Your task to perform on an android device: turn smart compose on in the gmail app Image 0: 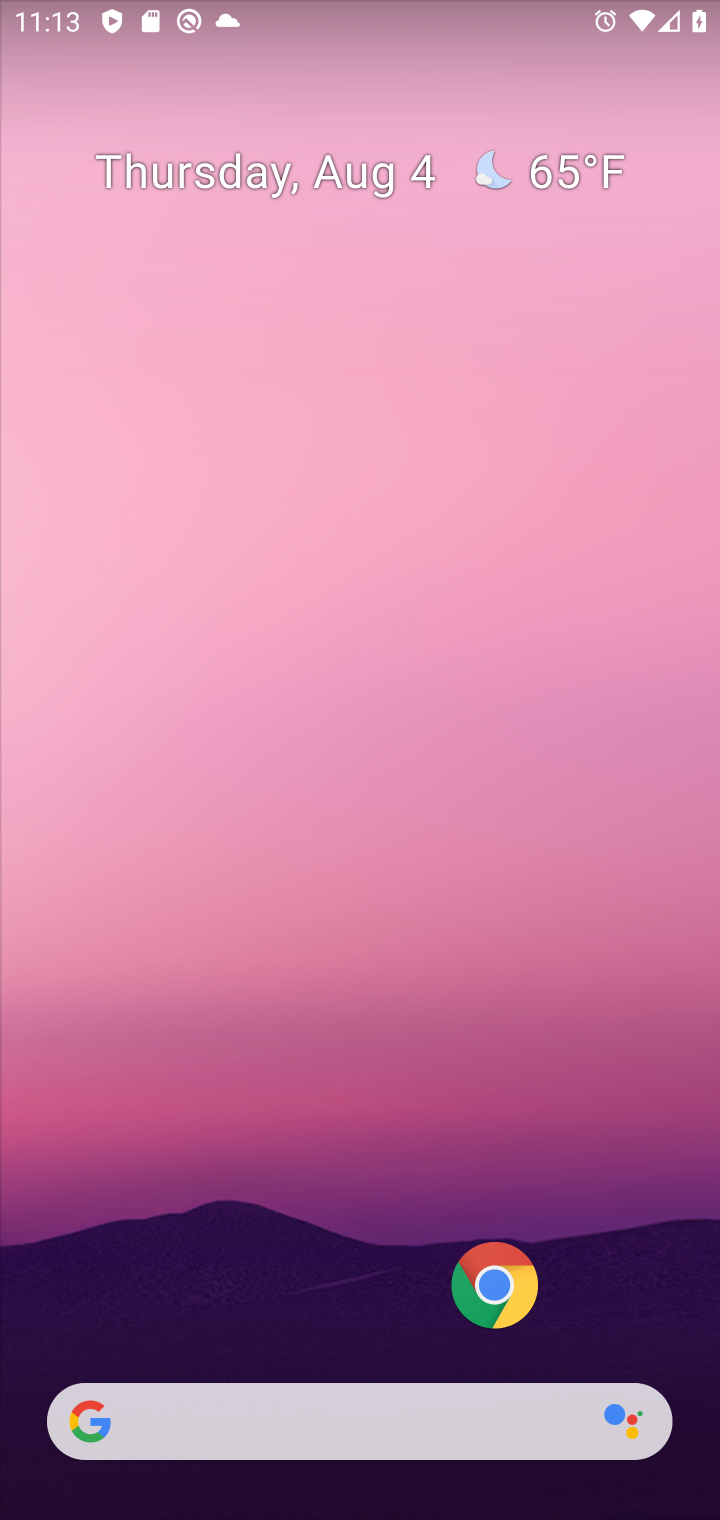
Step 0: press home button
Your task to perform on an android device: turn smart compose on in the gmail app Image 1: 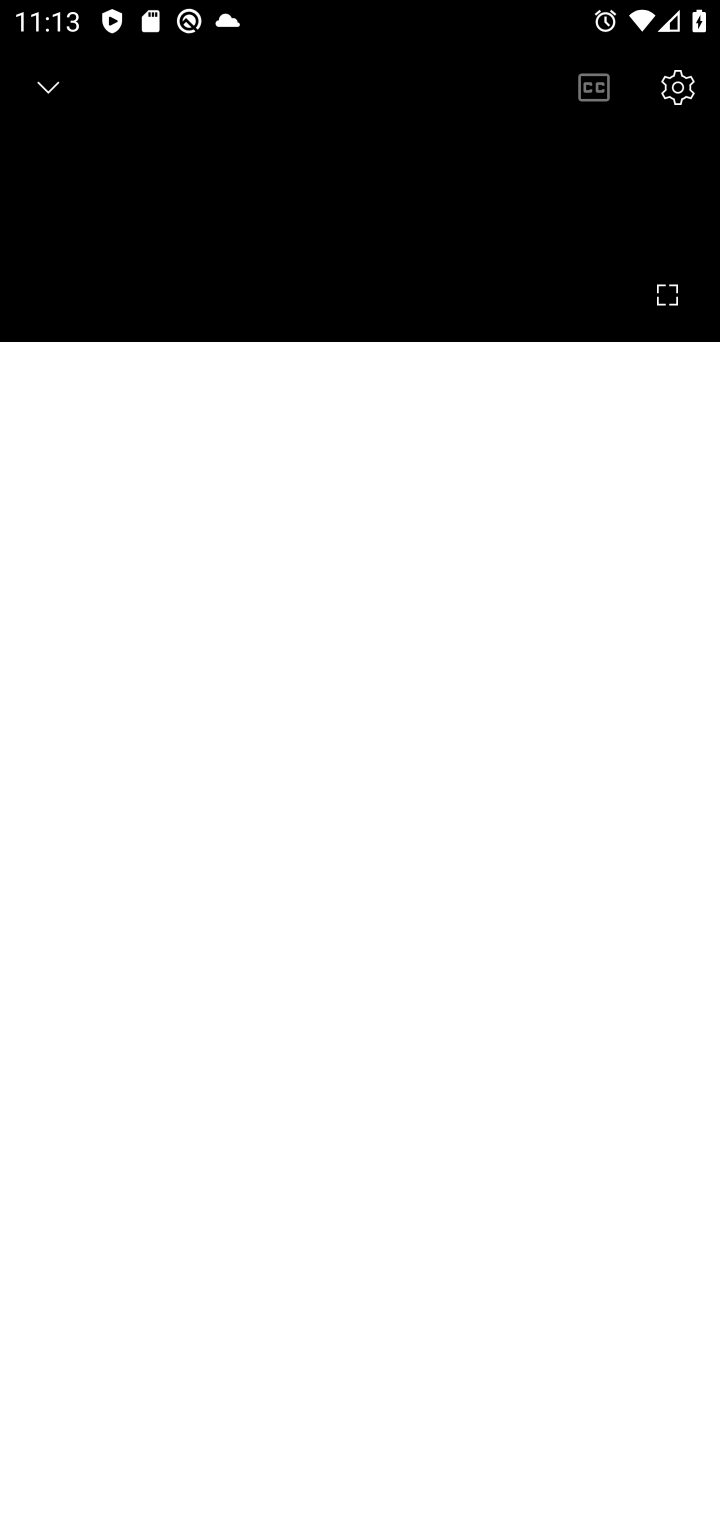
Step 1: drag from (278, 196) to (293, 128)
Your task to perform on an android device: turn smart compose on in the gmail app Image 2: 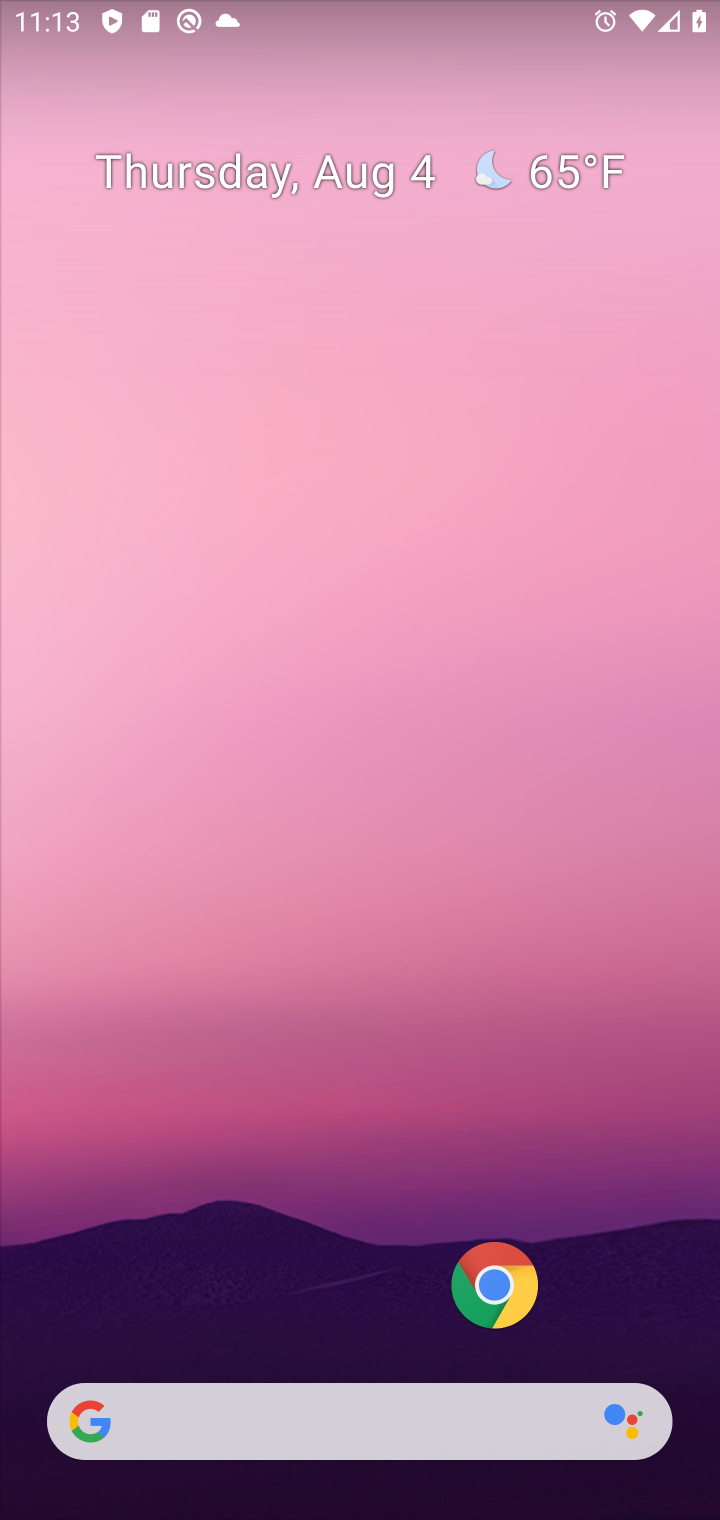
Step 2: drag from (344, 1356) to (373, 316)
Your task to perform on an android device: turn smart compose on in the gmail app Image 3: 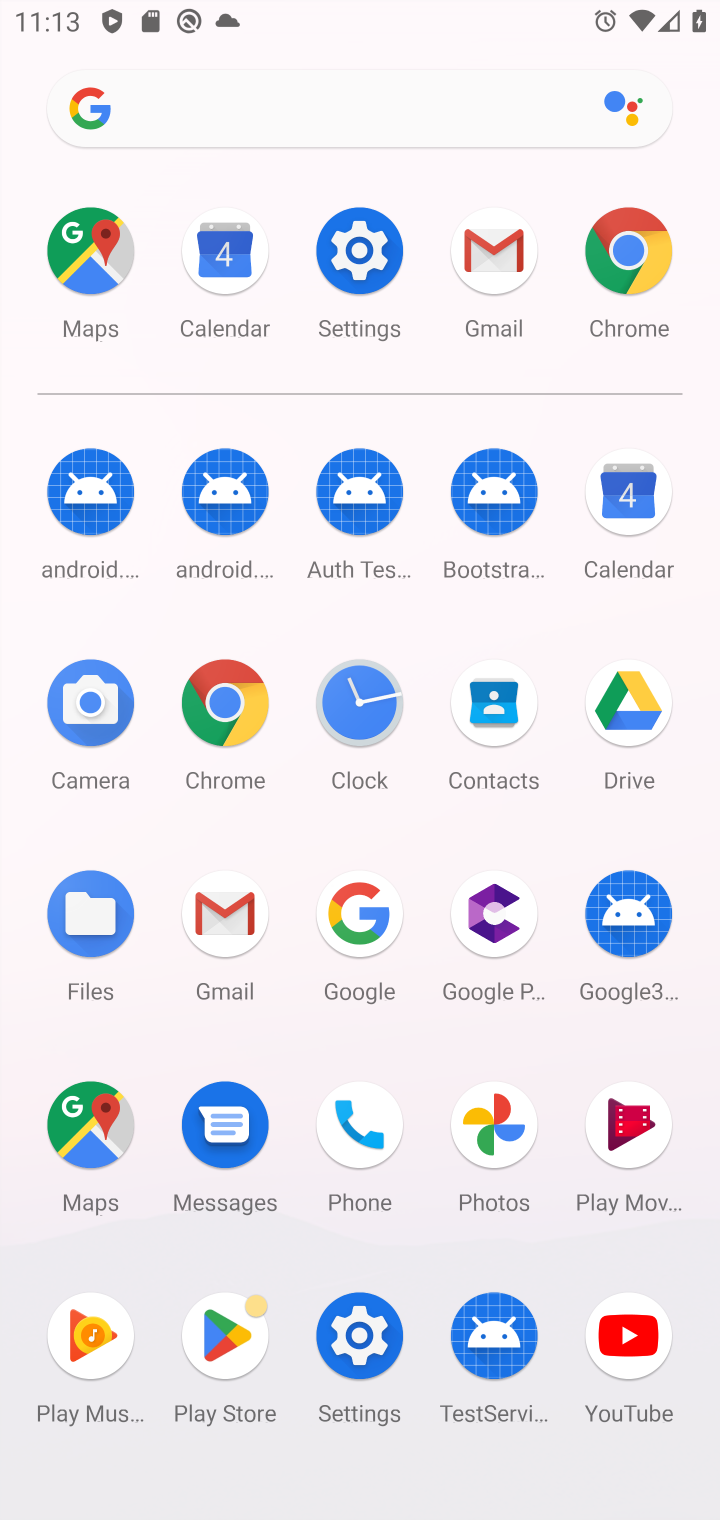
Step 3: click (219, 966)
Your task to perform on an android device: turn smart compose on in the gmail app Image 4: 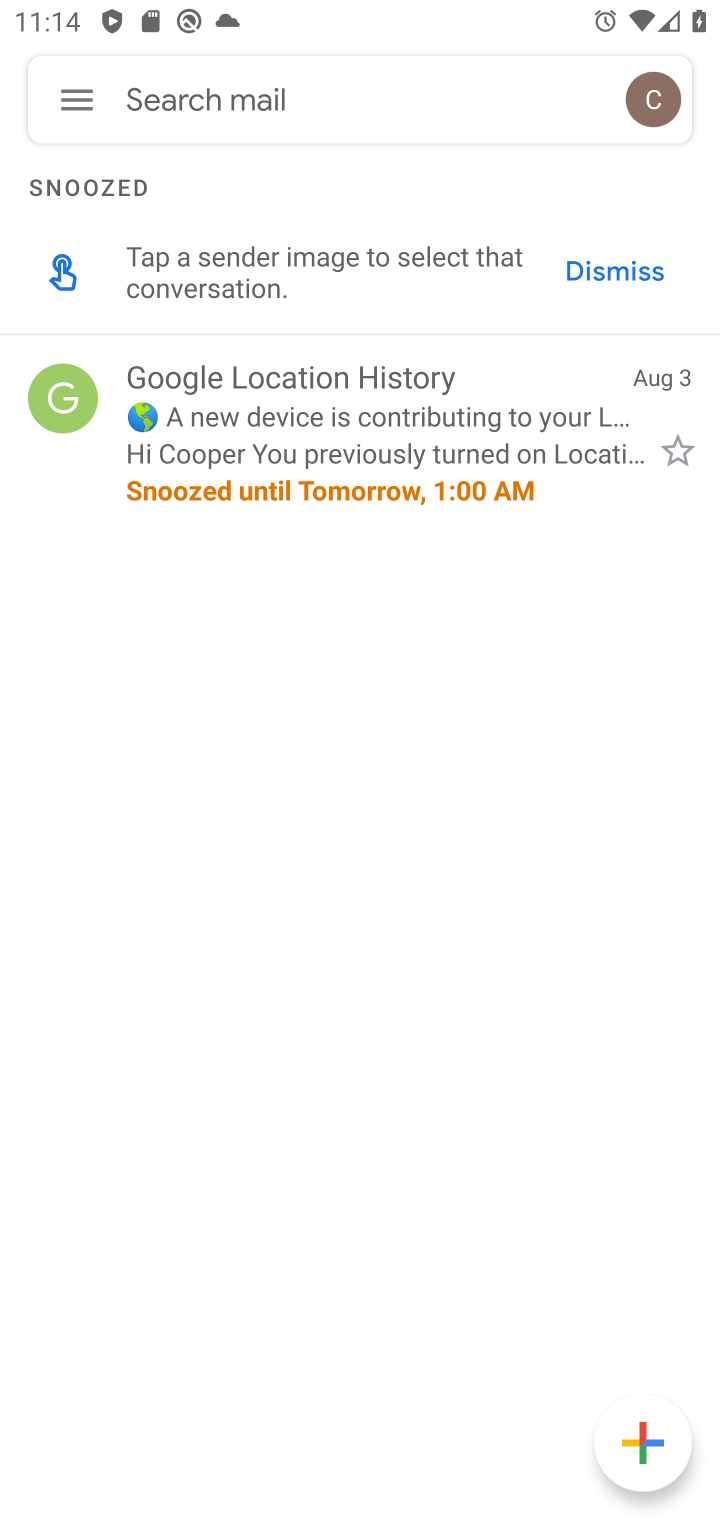
Step 4: click (90, 83)
Your task to perform on an android device: turn smart compose on in the gmail app Image 5: 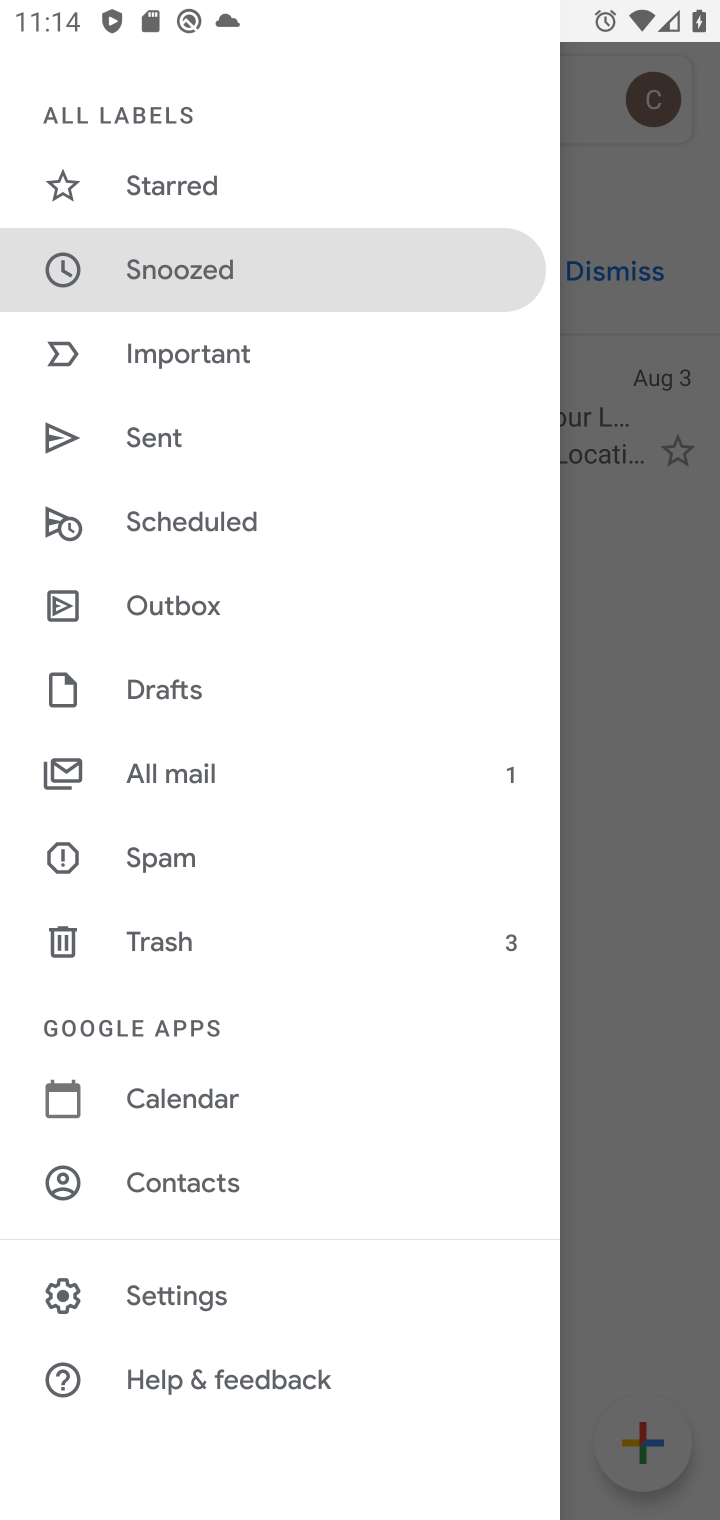
Step 5: click (188, 1304)
Your task to perform on an android device: turn smart compose on in the gmail app Image 6: 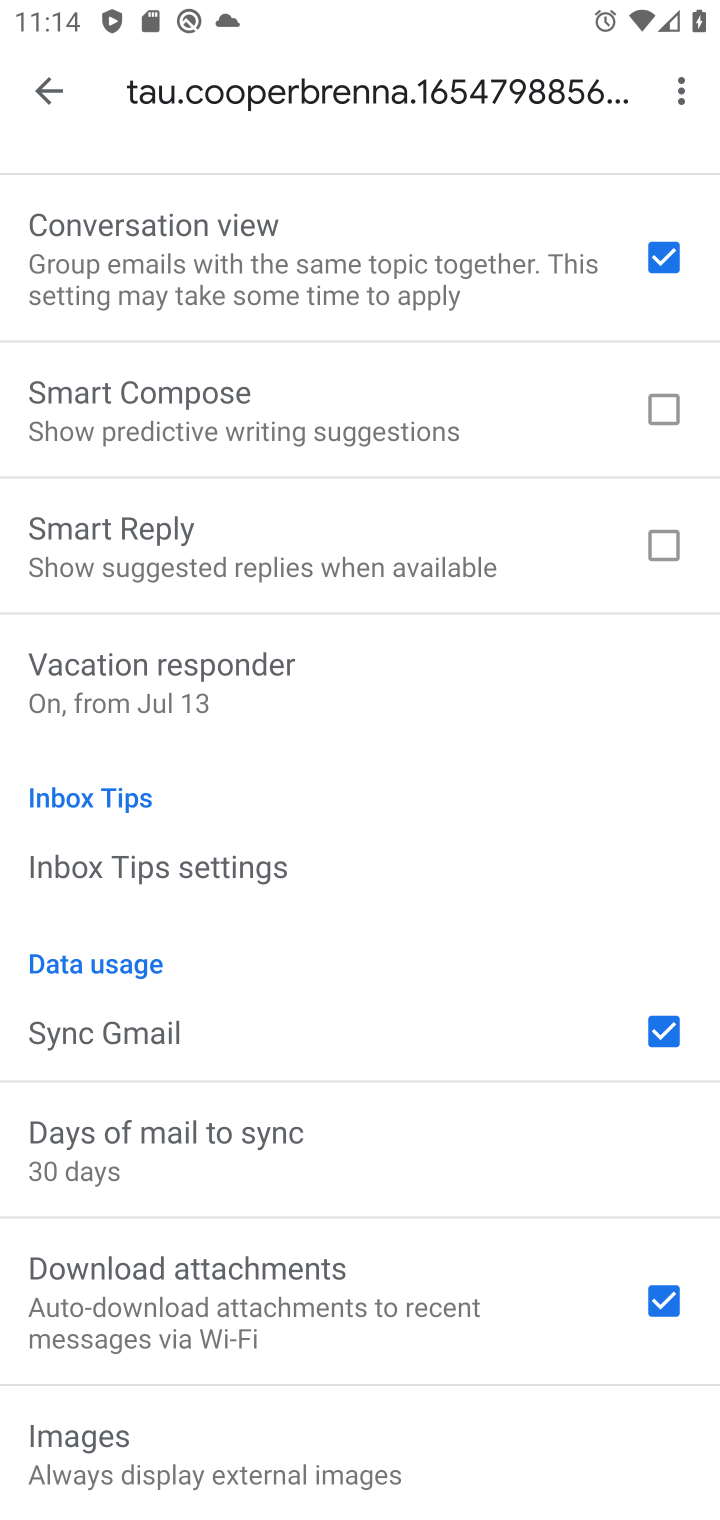
Step 6: click (292, 1273)
Your task to perform on an android device: turn smart compose on in the gmail app Image 7: 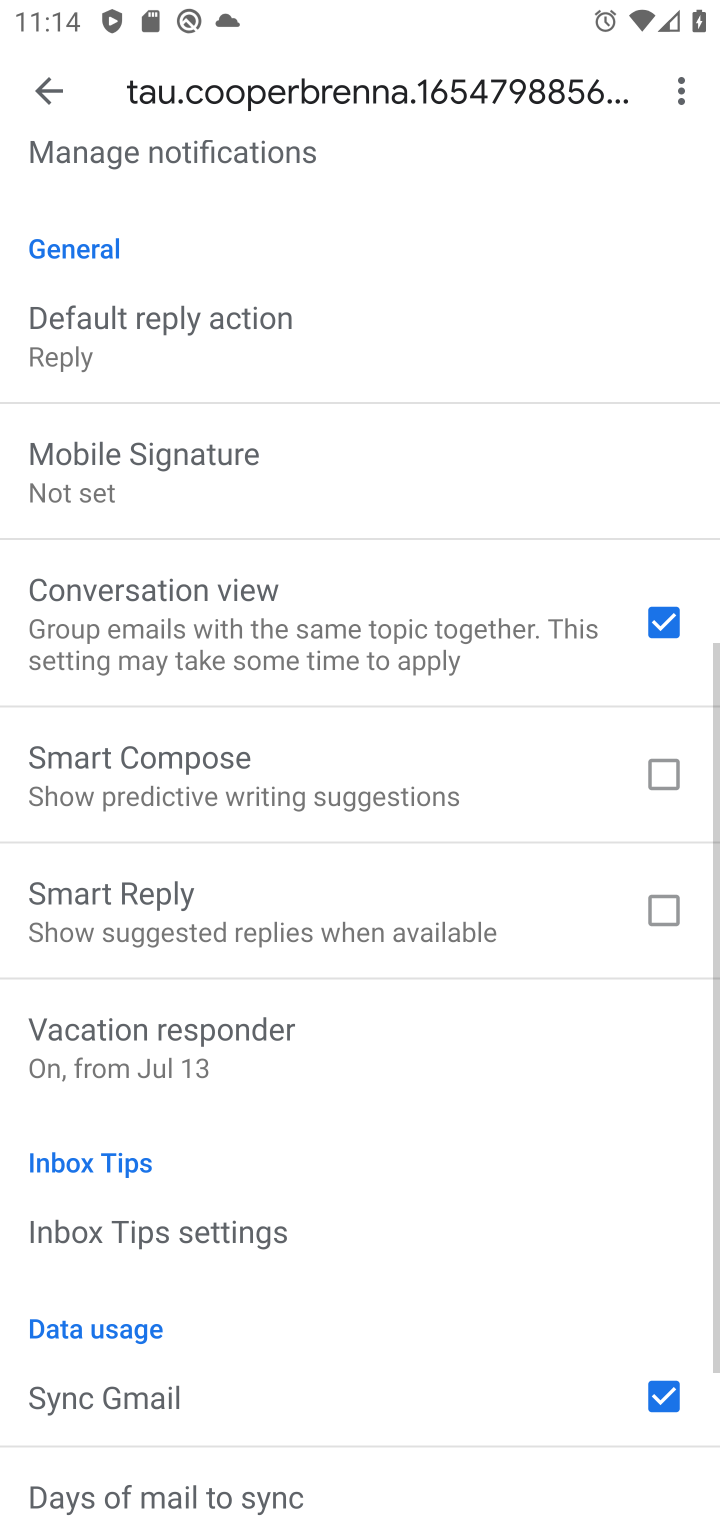
Step 7: click (322, 763)
Your task to perform on an android device: turn smart compose on in the gmail app Image 8: 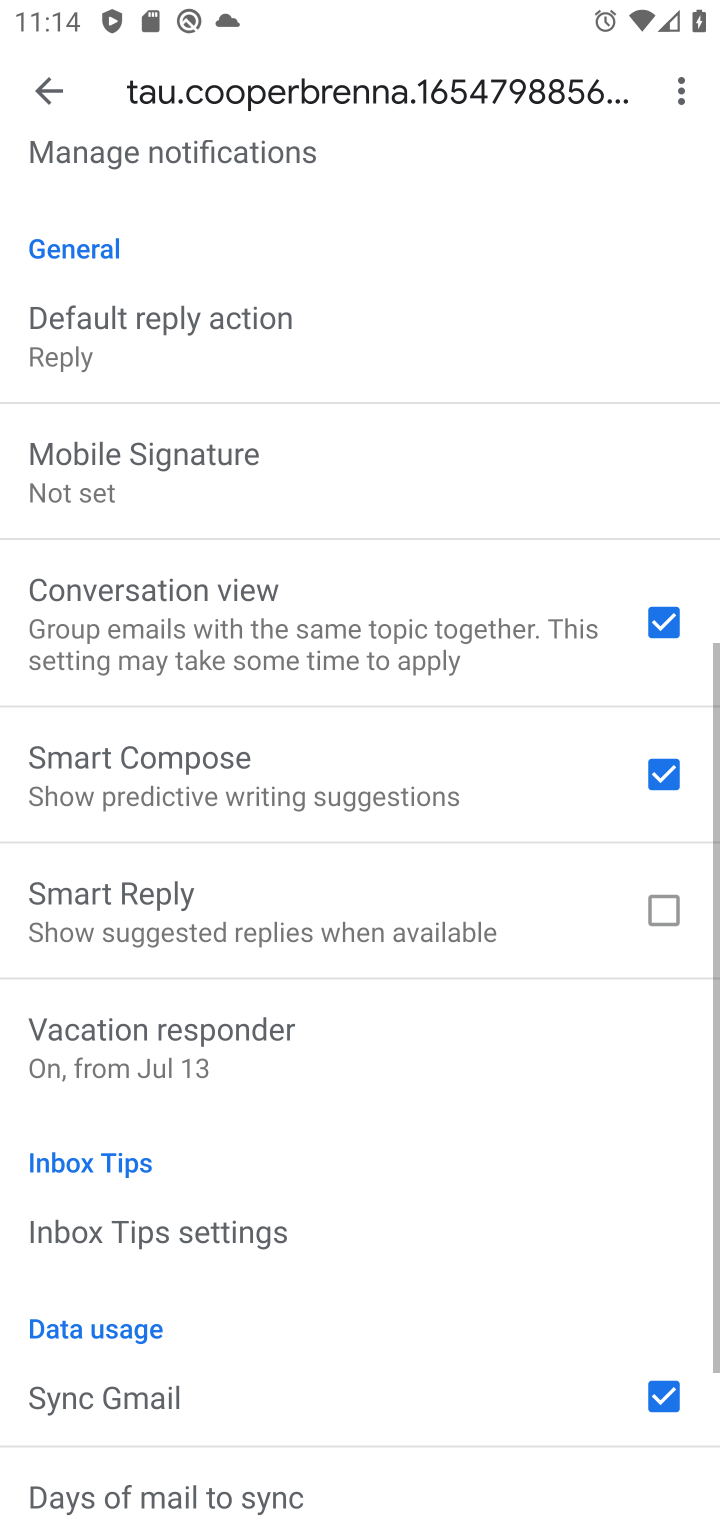
Step 8: task complete